Your task to perform on an android device: Go to settings Image 0: 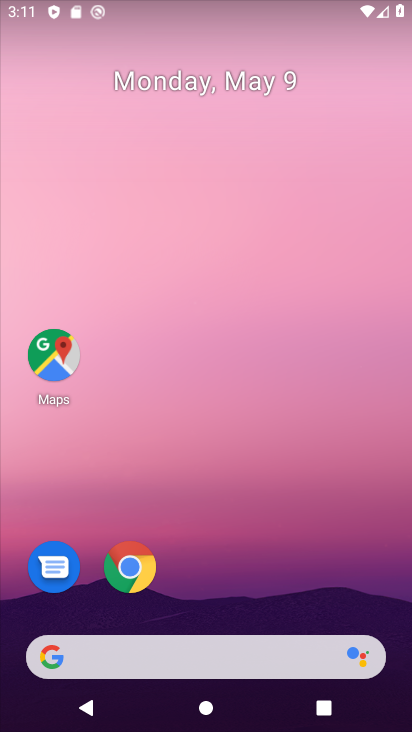
Step 0: drag from (234, 619) to (402, 76)
Your task to perform on an android device: Go to settings Image 1: 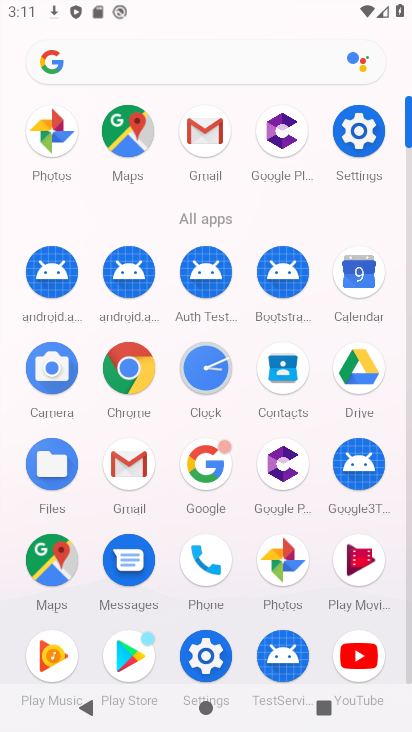
Step 1: click (366, 142)
Your task to perform on an android device: Go to settings Image 2: 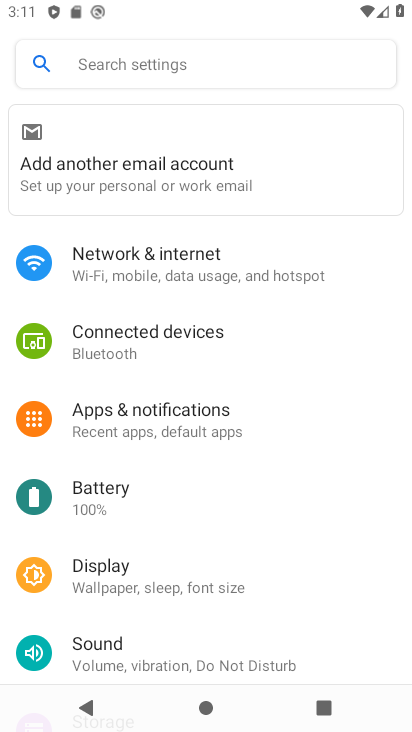
Step 2: task complete